Your task to perform on an android device: Show me popular videos on Youtube Image 0: 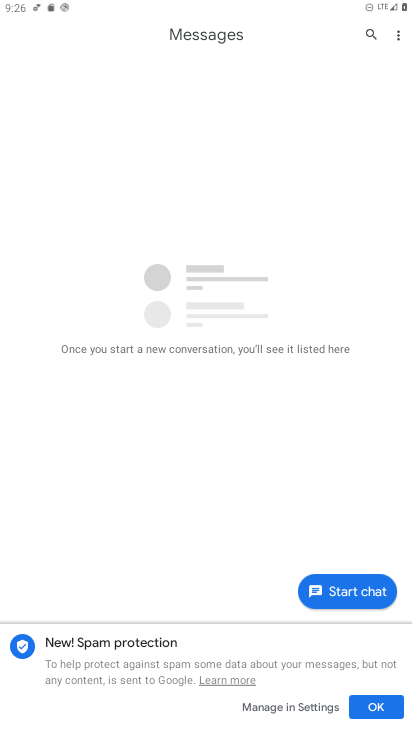
Step 0: press home button
Your task to perform on an android device: Show me popular videos on Youtube Image 1: 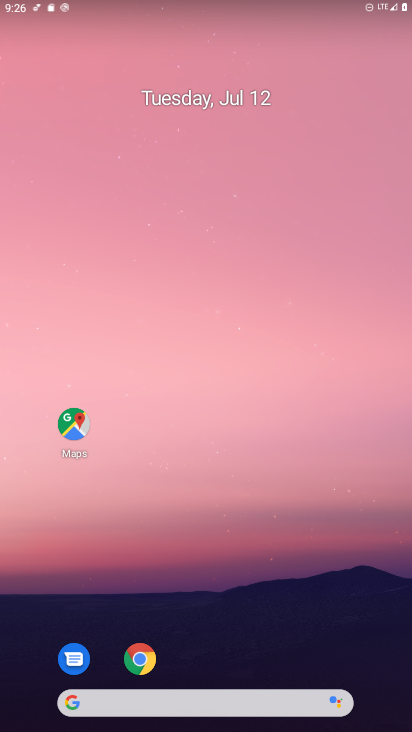
Step 1: drag from (186, 700) to (243, 279)
Your task to perform on an android device: Show me popular videos on Youtube Image 2: 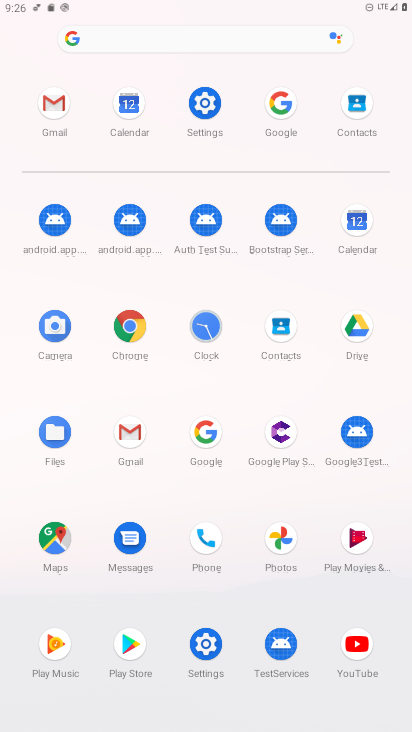
Step 2: click (357, 644)
Your task to perform on an android device: Show me popular videos on Youtube Image 3: 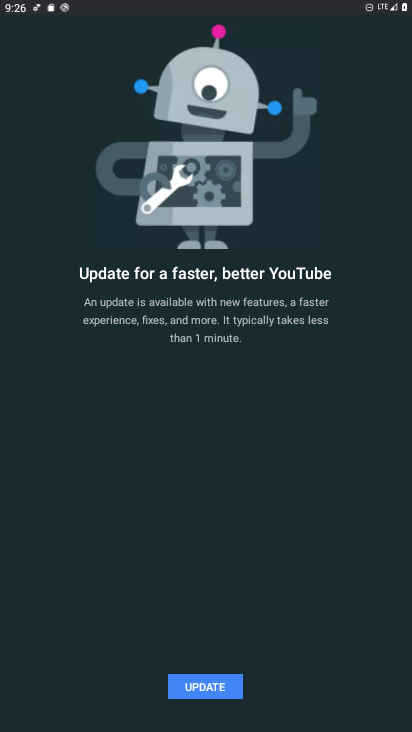
Step 3: click (211, 691)
Your task to perform on an android device: Show me popular videos on Youtube Image 4: 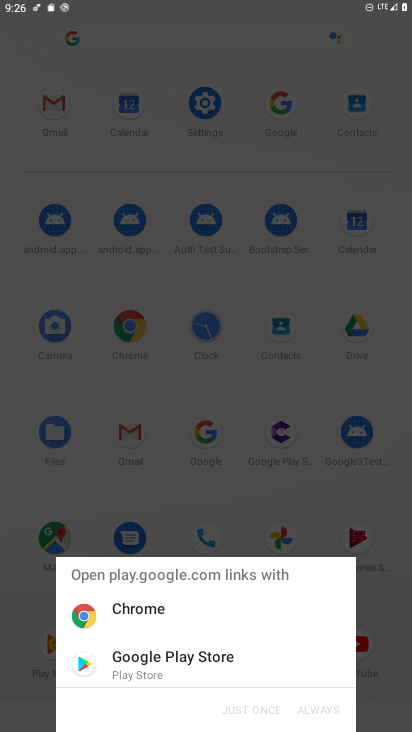
Step 4: click (169, 654)
Your task to perform on an android device: Show me popular videos on Youtube Image 5: 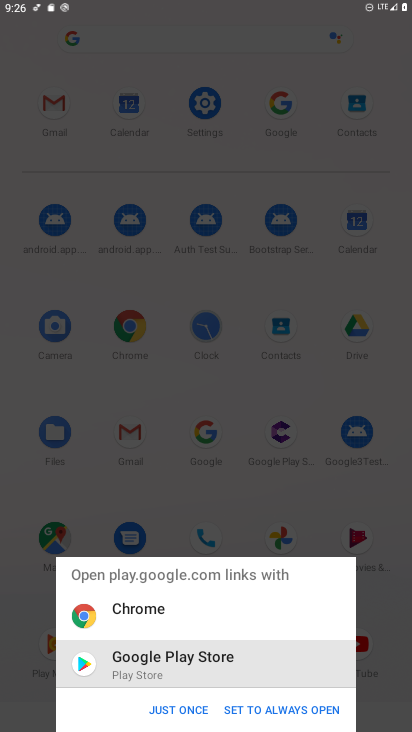
Step 5: click (183, 707)
Your task to perform on an android device: Show me popular videos on Youtube Image 6: 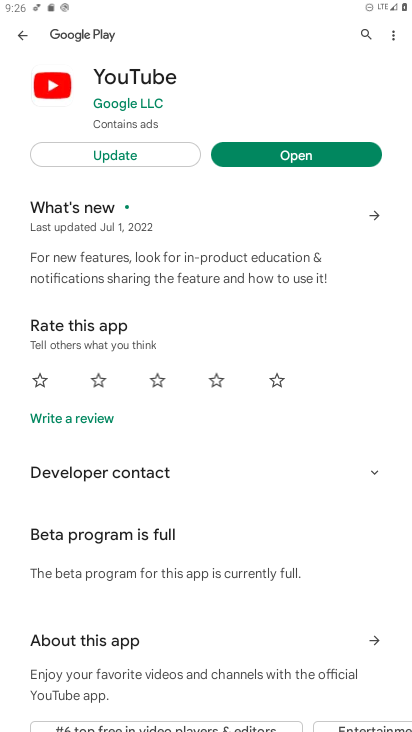
Step 6: click (120, 155)
Your task to perform on an android device: Show me popular videos on Youtube Image 7: 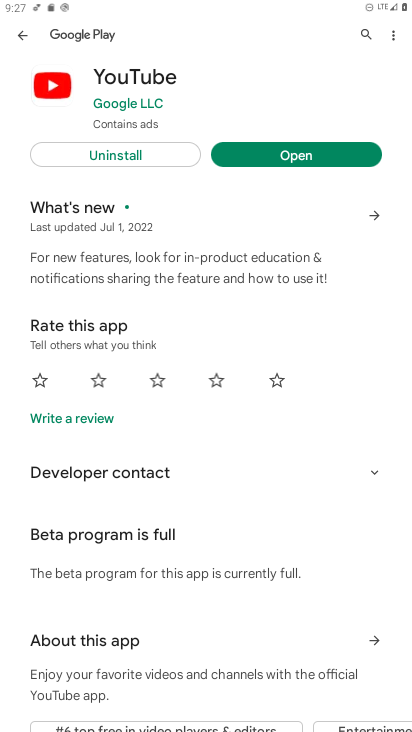
Step 7: click (310, 155)
Your task to perform on an android device: Show me popular videos on Youtube Image 8: 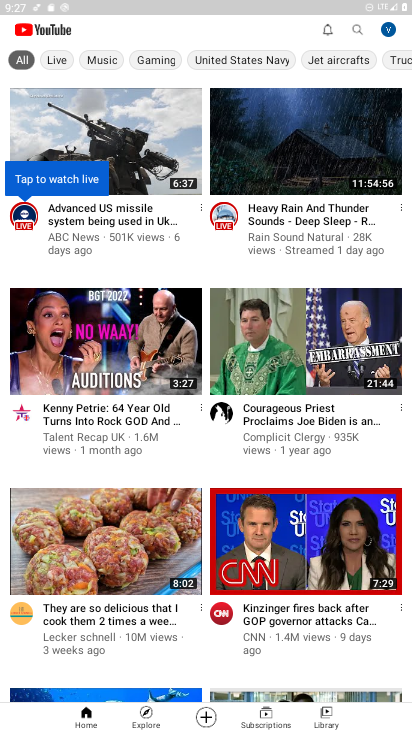
Step 8: click (355, 27)
Your task to perform on an android device: Show me popular videos on Youtube Image 9: 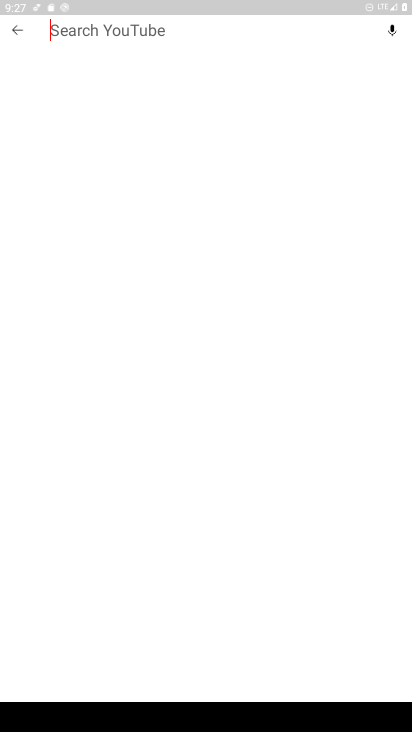
Step 9: type "popular videos"
Your task to perform on an android device: Show me popular videos on Youtube Image 10: 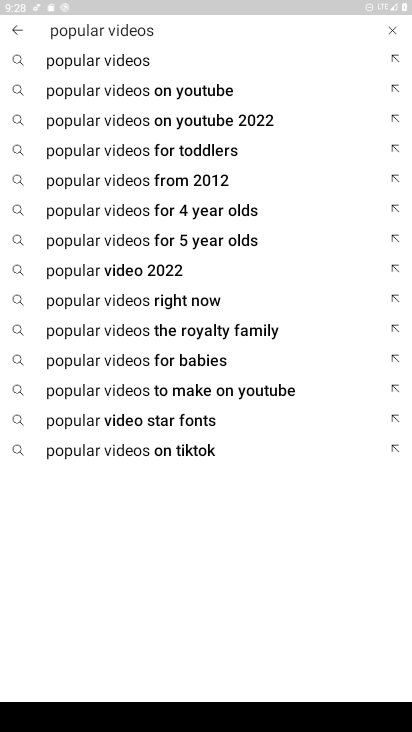
Step 10: click (219, 94)
Your task to perform on an android device: Show me popular videos on Youtube Image 11: 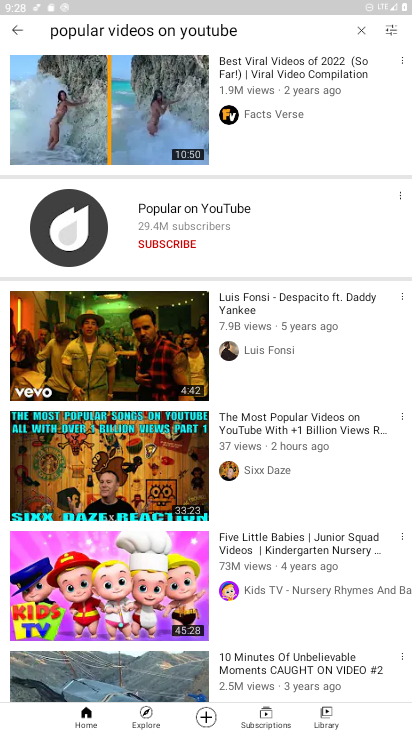
Step 11: task complete